Your task to perform on an android device: Go to network settings Image 0: 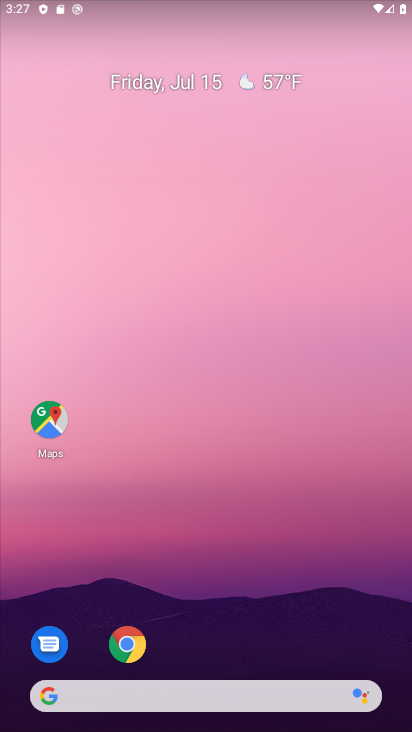
Step 0: drag from (287, 622) to (234, 82)
Your task to perform on an android device: Go to network settings Image 1: 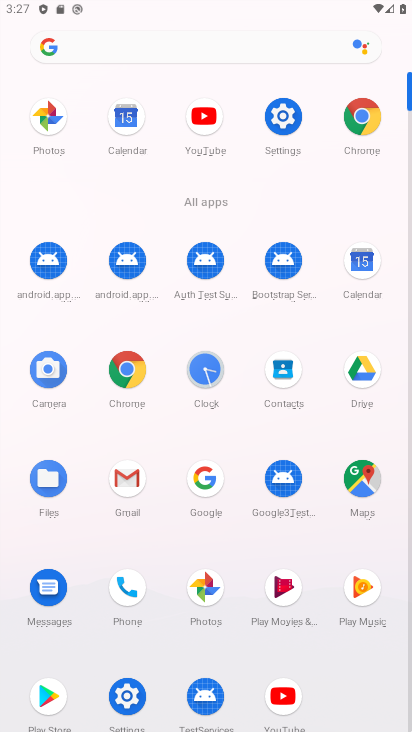
Step 1: click (276, 114)
Your task to perform on an android device: Go to network settings Image 2: 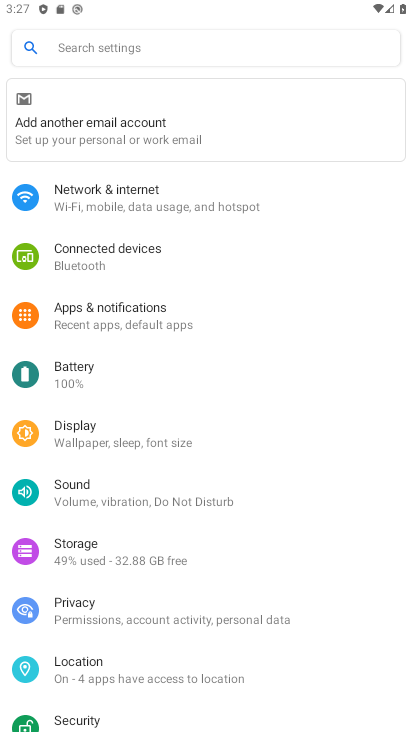
Step 2: click (218, 205)
Your task to perform on an android device: Go to network settings Image 3: 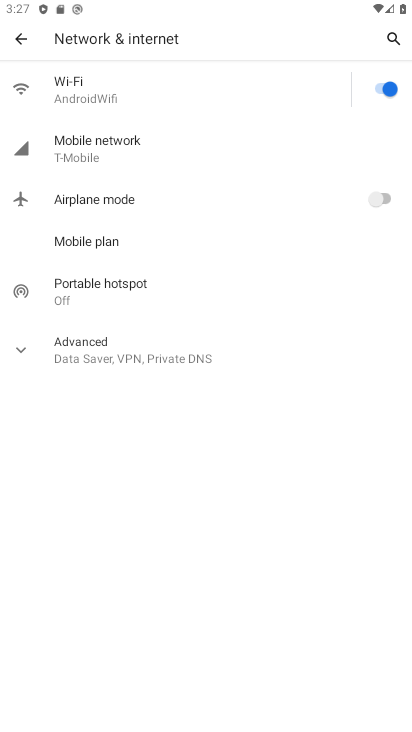
Step 3: task complete